Your task to perform on an android device: turn pop-ups on in chrome Image 0: 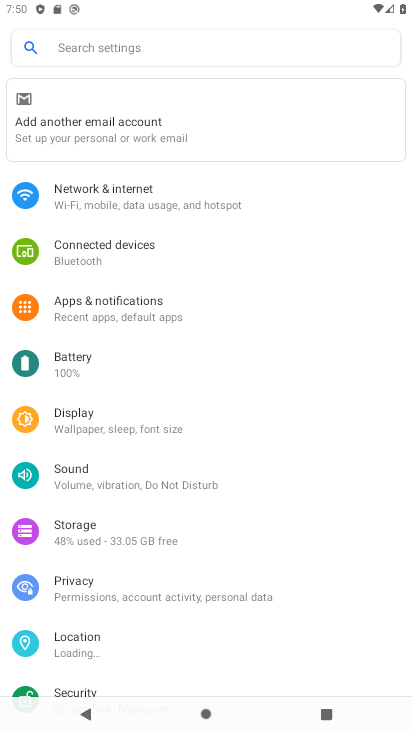
Step 0: press home button
Your task to perform on an android device: turn pop-ups on in chrome Image 1: 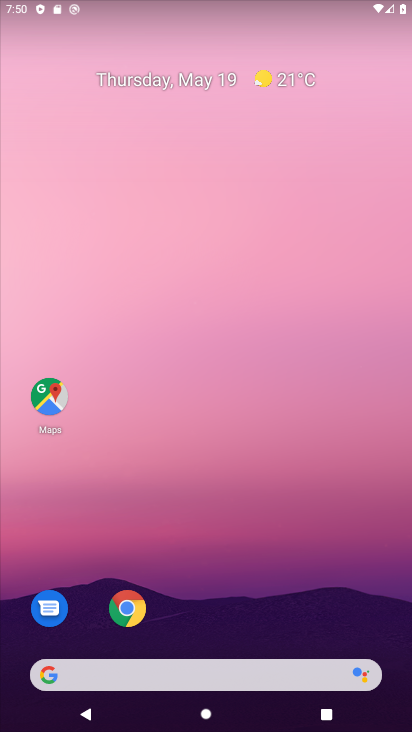
Step 1: click (121, 613)
Your task to perform on an android device: turn pop-ups on in chrome Image 2: 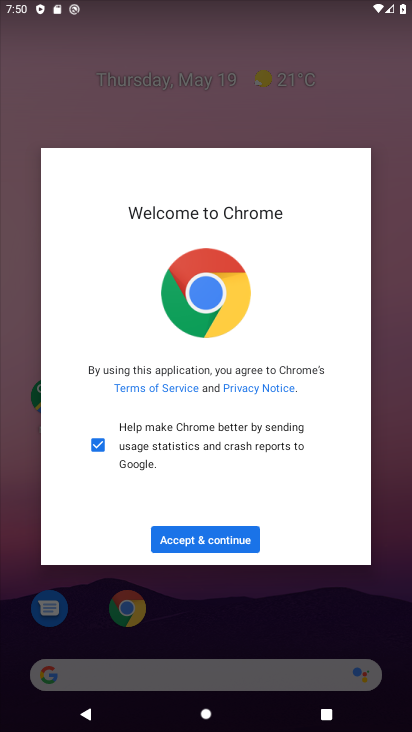
Step 2: click (217, 539)
Your task to perform on an android device: turn pop-ups on in chrome Image 3: 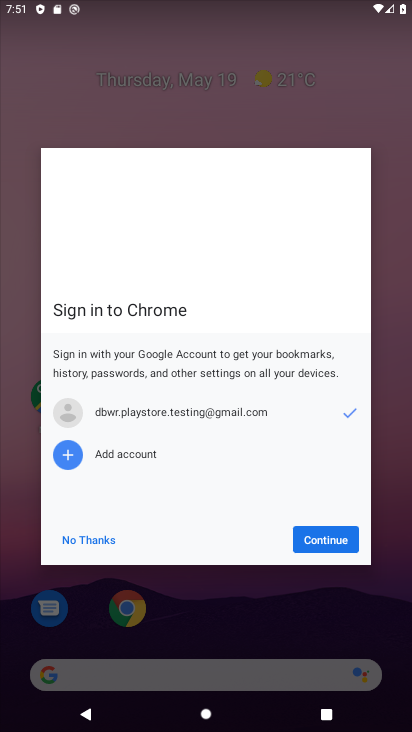
Step 3: click (323, 532)
Your task to perform on an android device: turn pop-ups on in chrome Image 4: 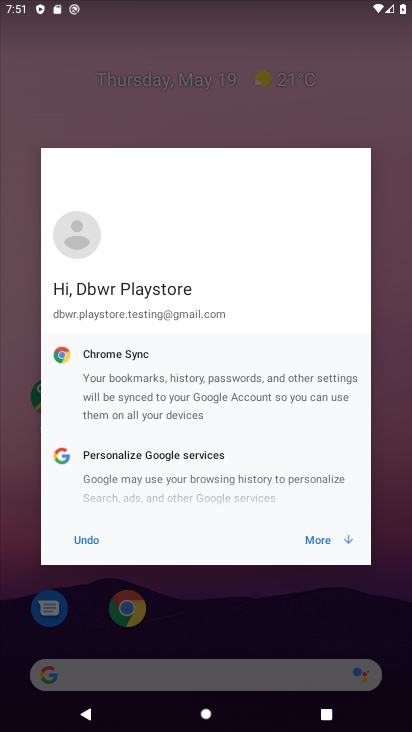
Step 4: click (340, 536)
Your task to perform on an android device: turn pop-ups on in chrome Image 5: 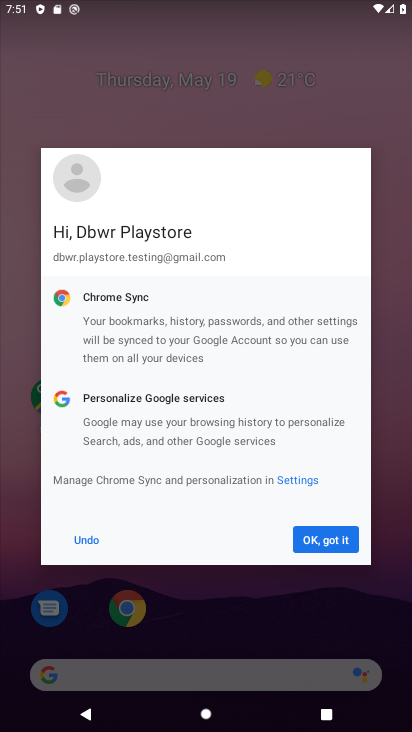
Step 5: click (312, 540)
Your task to perform on an android device: turn pop-ups on in chrome Image 6: 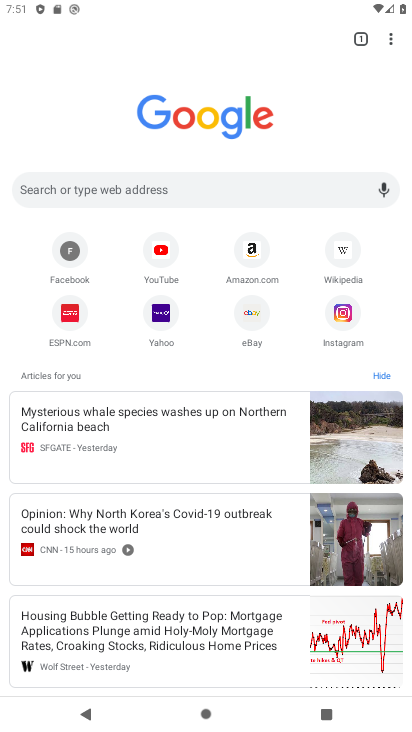
Step 6: click (394, 32)
Your task to perform on an android device: turn pop-ups on in chrome Image 7: 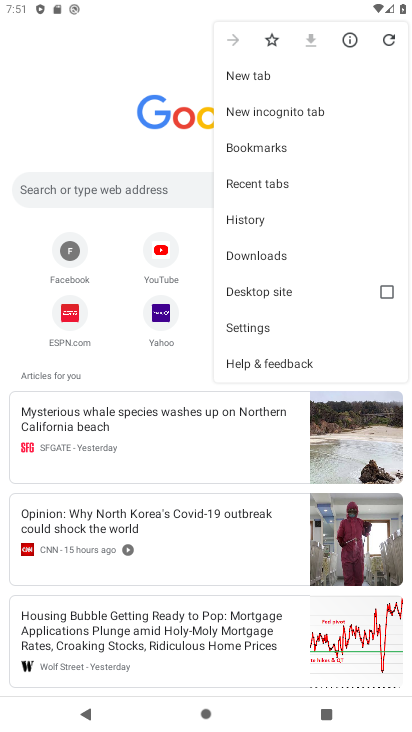
Step 7: click (258, 329)
Your task to perform on an android device: turn pop-ups on in chrome Image 8: 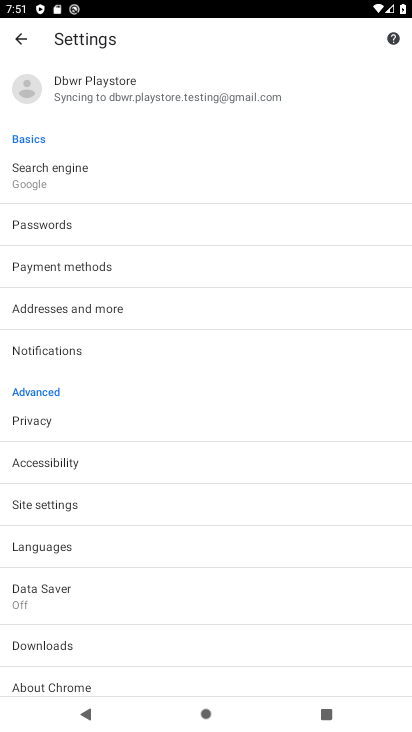
Step 8: click (58, 501)
Your task to perform on an android device: turn pop-ups on in chrome Image 9: 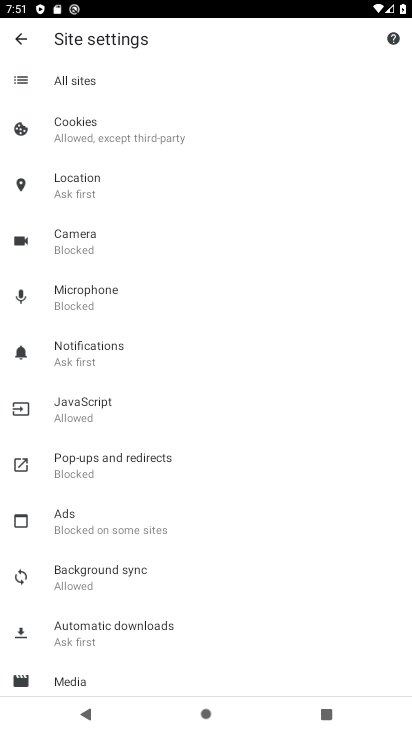
Step 9: click (67, 454)
Your task to perform on an android device: turn pop-ups on in chrome Image 10: 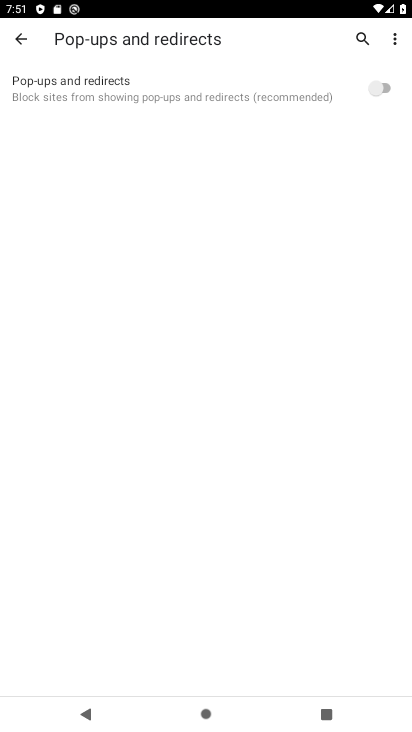
Step 10: click (388, 83)
Your task to perform on an android device: turn pop-ups on in chrome Image 11: 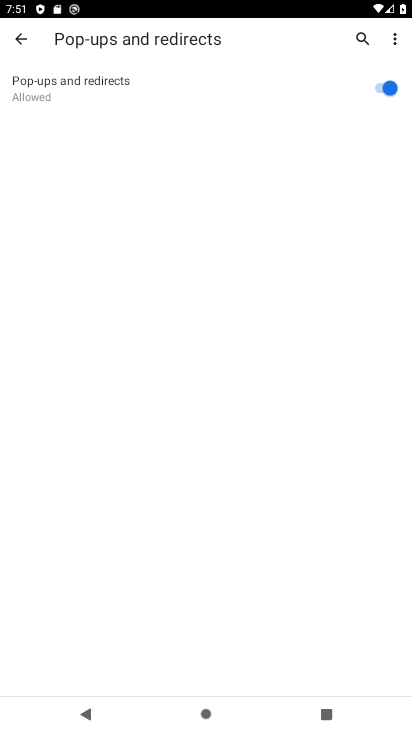
Step 11: task complete